Your task to perform on an android device: Open the Play Movies app and select the watchlist tab. Image 0: 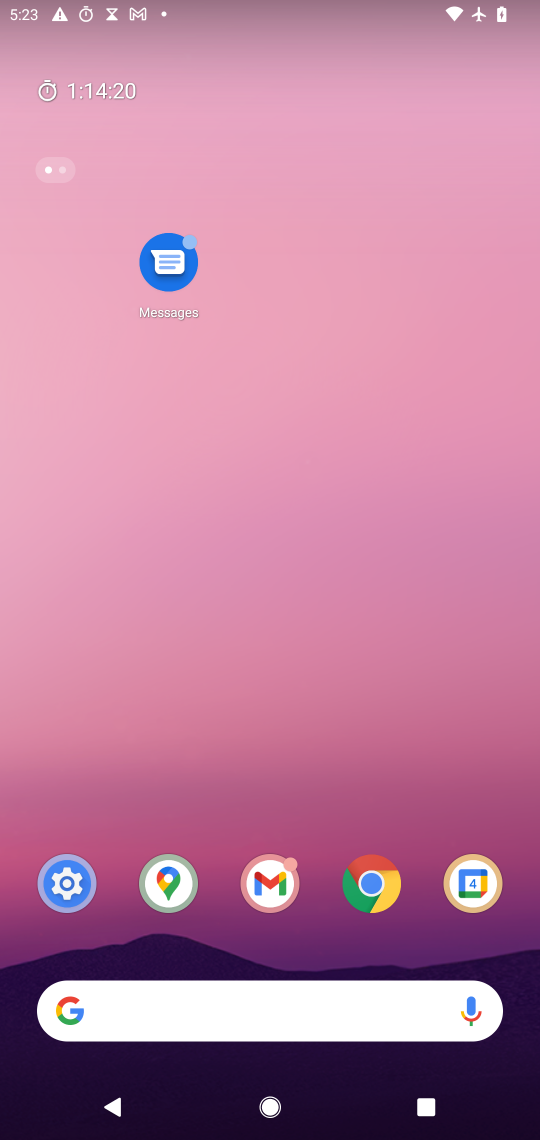
Step 0: drag from (326, 797) to (387, 105)
Your task to perform on an android device: Open the Play Movies app and select the watchlist tab. Image 1: 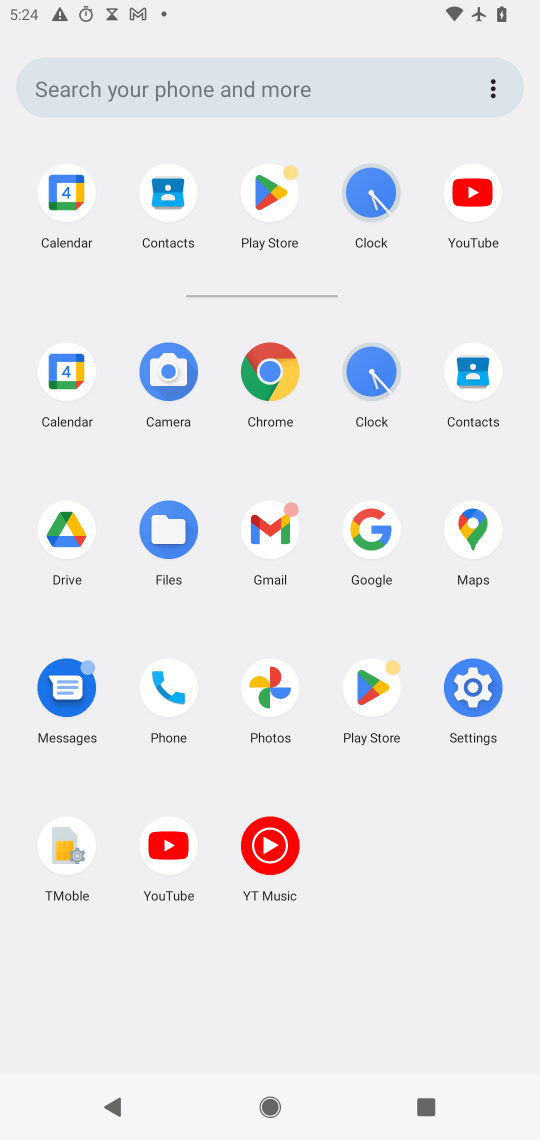
Step 1: task complete